Your task to perform on an android device: What's the weather going to be this weekend? Image 0: 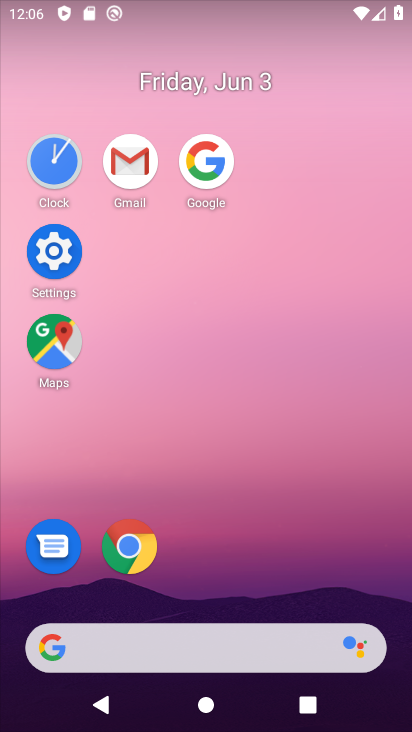
Step 0: click (206, 151)
Your task to perform on an android device: What's the weather going to be this weekend? Image 1: 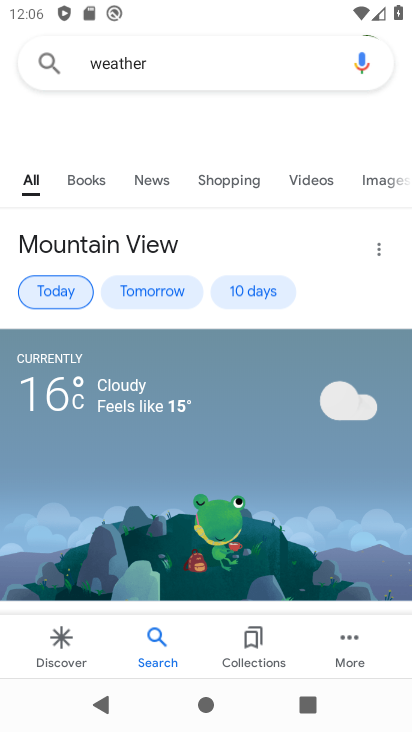
Step 1: click (260, 289)
Your task to perform on an android device: What's the weather going to be this weekend? Image 2: 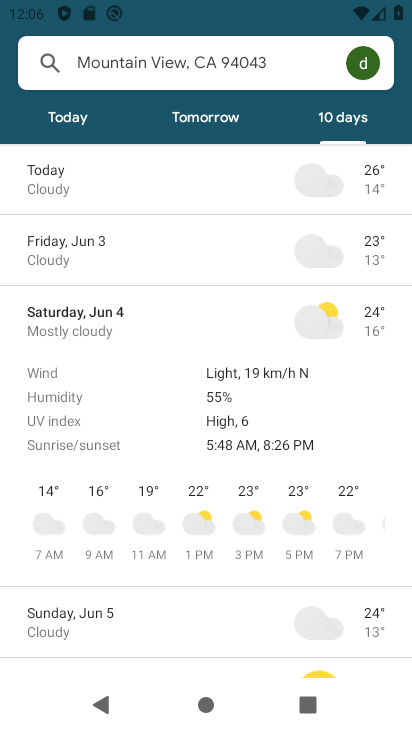
Step 2: task complete